Your task to perform on an android device: Open Google Chrome Image 0: 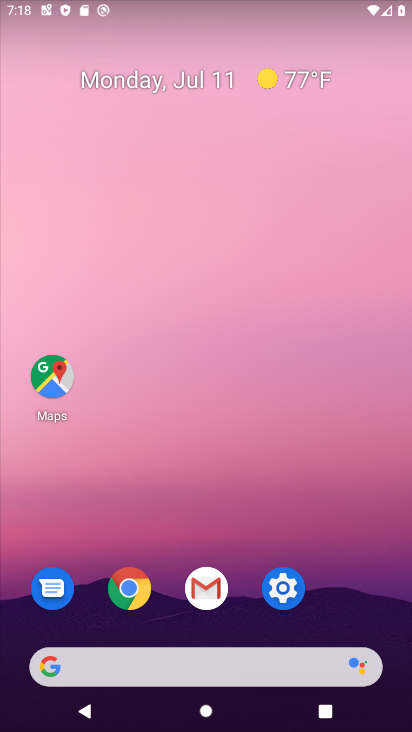
Step 0: click (143, 582)
Your task to perform on an android device: Open Google Chrome Image 1: 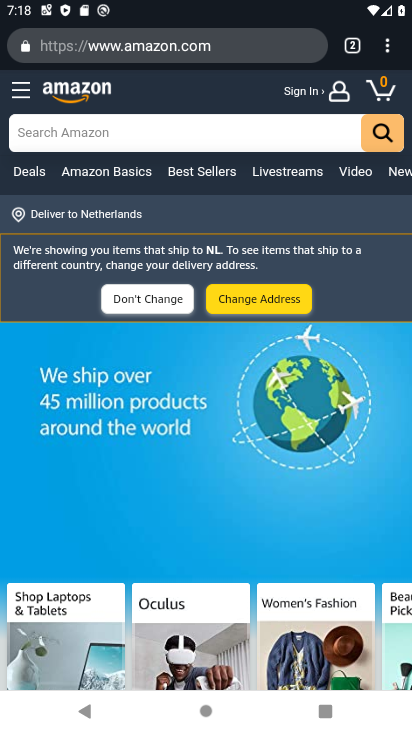
Step 1: click (395, 56)
Your task to perform on an android device: Open Google Chrome Image 2: 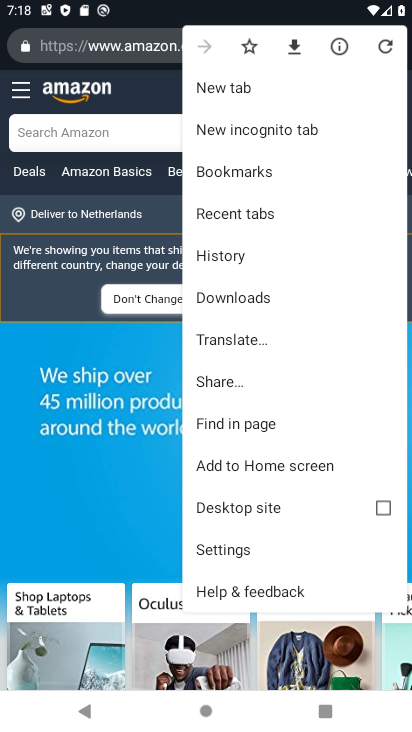
Step 2: click (246, 90)
Your task to perform on an android device: Open Google Chrome Image 3: 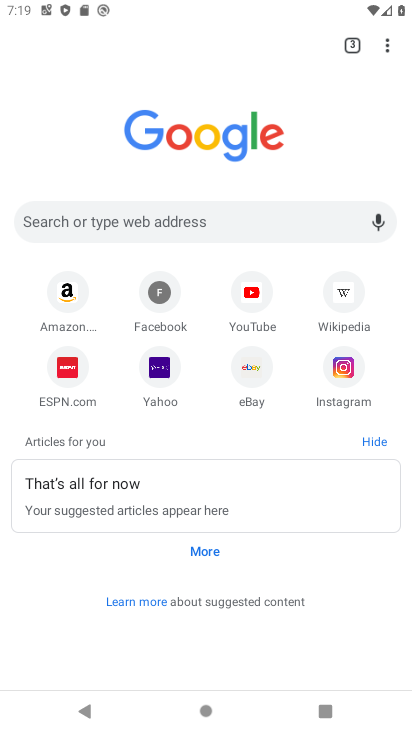
Step 3: task complete